Your task to perform on an android device: Open Maps and search for coffee Image 0: 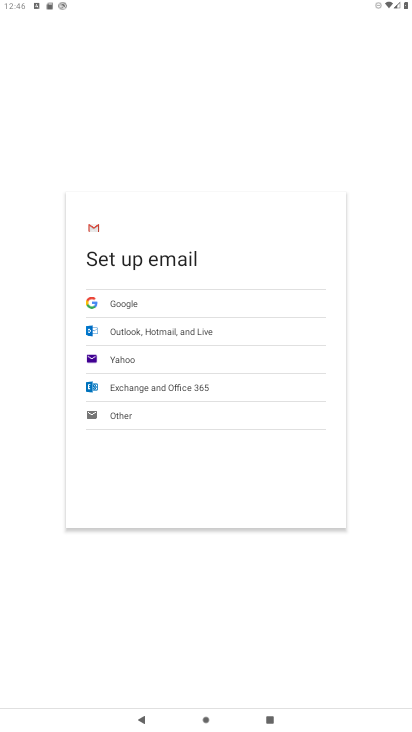
Step 0: press home button
Your task to perform on an android device: Open Maps and search for coffee Image 1: 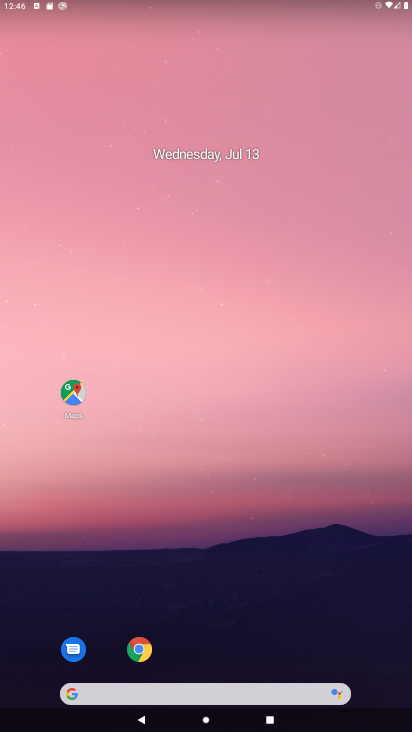
Step 1: click (71, 392)
Your task to perform on an android device: Open Maps and search for coffee Image 2: 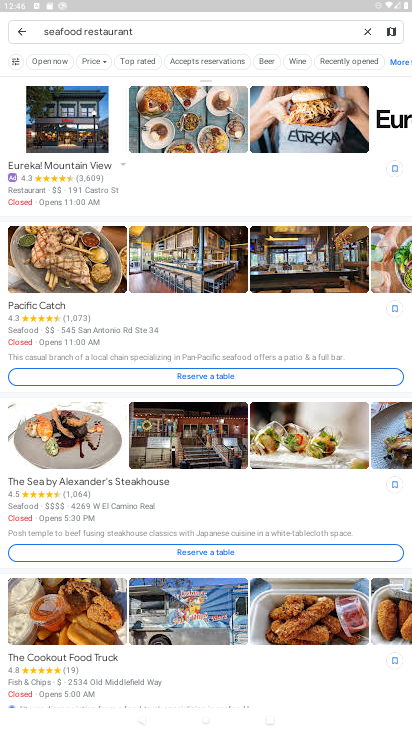
Step 2: click (361, 28)
Your task to perform on an android device: Open Maps and search for coffee Image 3: 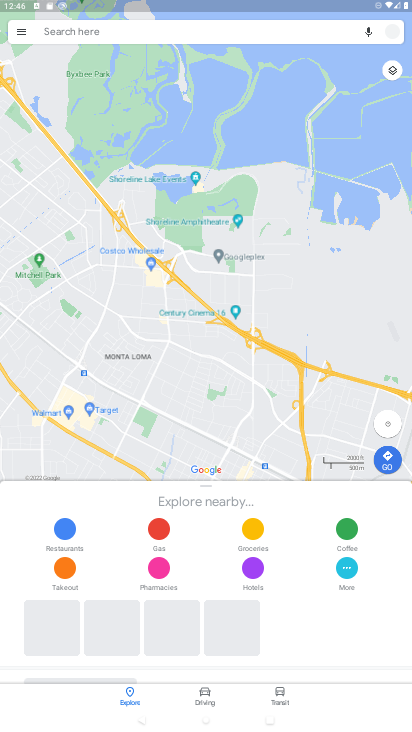
Step 3: click (137, 33)
Your task to perform on an android device: Open Maps and search for coffee Image 4: 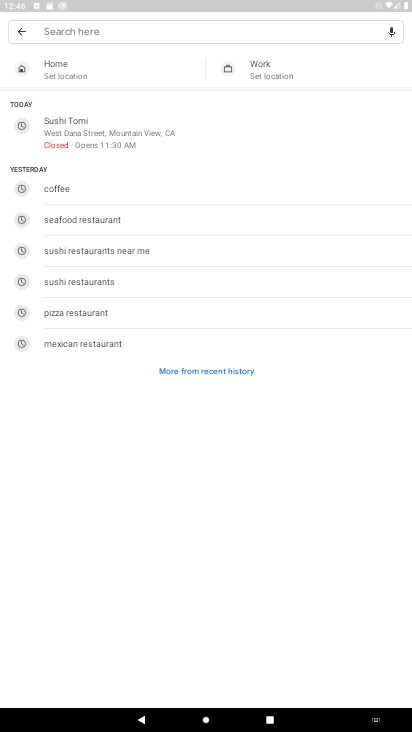
Step 4: type "coffee"
Your task to perform on an android device: Open Maps and search for coffee Image 5: 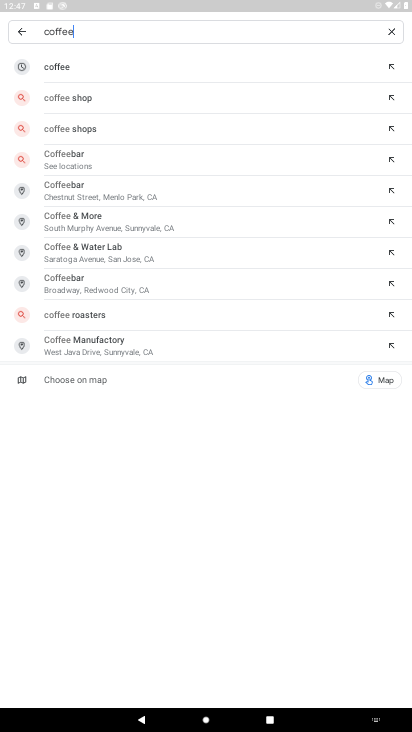
Step 5: click (78, 66)
Your task to perform on an android device: Open Maps and search for coffee Image 6: 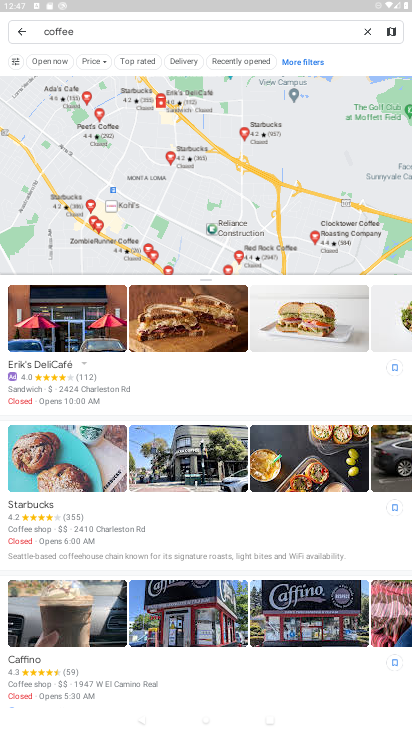
Step 6: task complete